Your task to perform on an android device: visit the assistant section in the google photos Image 0: 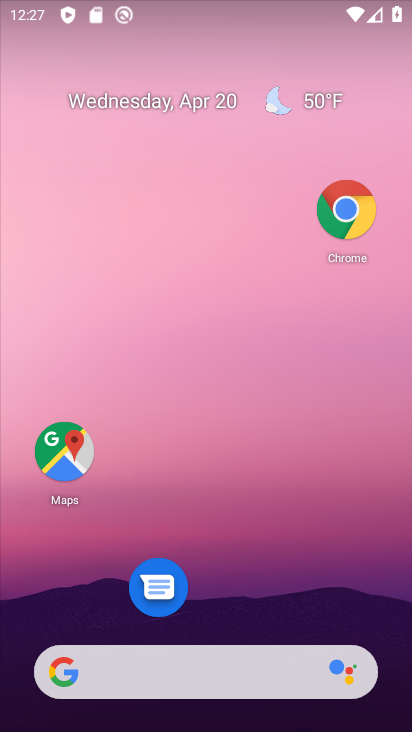
Step 0: drag from (245, 599) to (282, 109)
Your task to perform on an android device: visit the assistant section in the google photos Image 1: 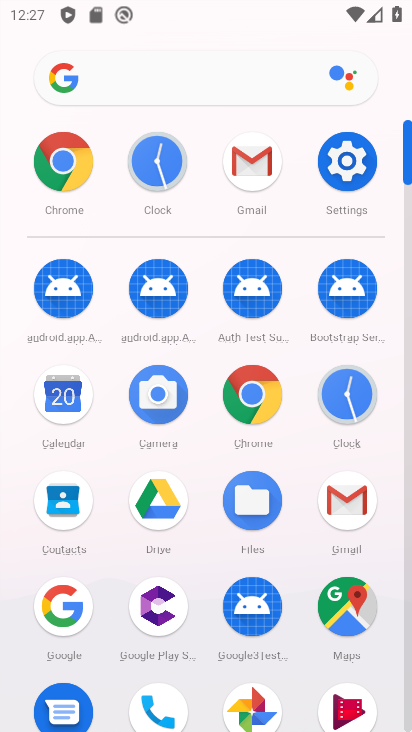
Step 1: click (238, 710)
Your task to perform on an android device: visit the assistant section in the google photos Image 2: 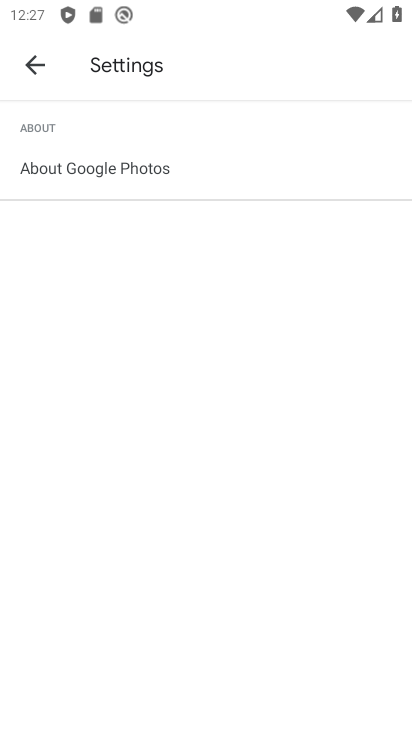
Step 2: click (30, 67)
Your task to perform on an android device: visit the assistant section in the google photos Image 3: 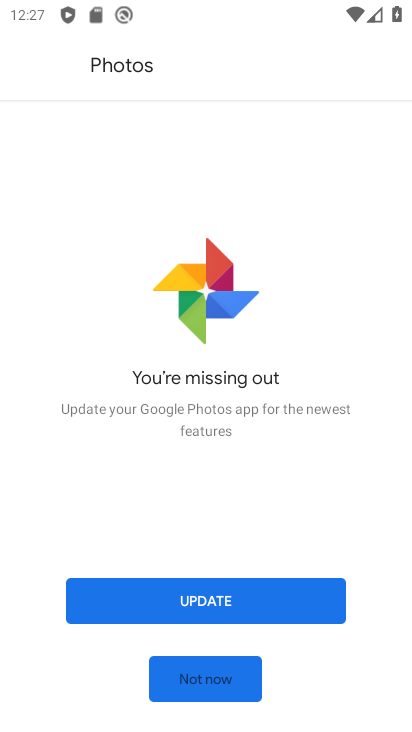
Step 3: click (225, 679)
Your task to perform on an android device: visit the assistant section in the google photos Image 4: 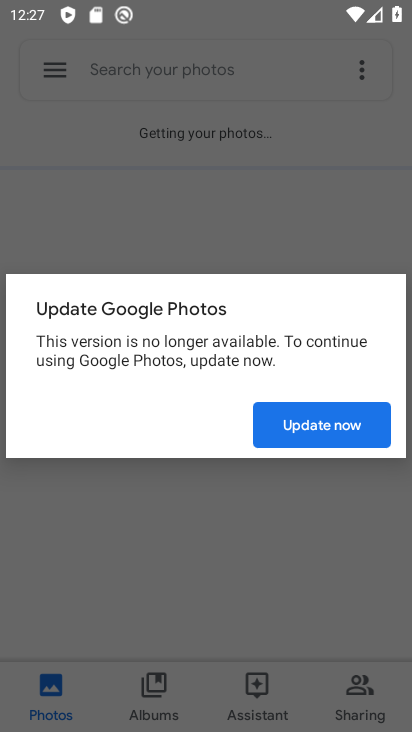
Step 4: click (301, 412)
Your task to perform on an android device: visit the assistant section in the google photos Image 5: 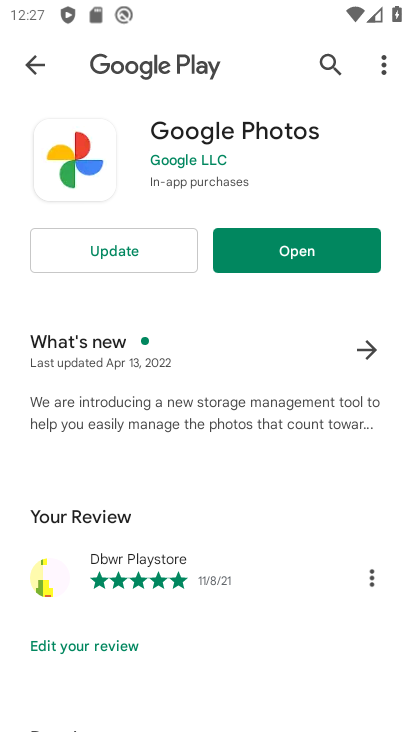
Step 5: click (307, 246)
Your task to perform on an android device: visit the assistant section in the google photos Image 6: 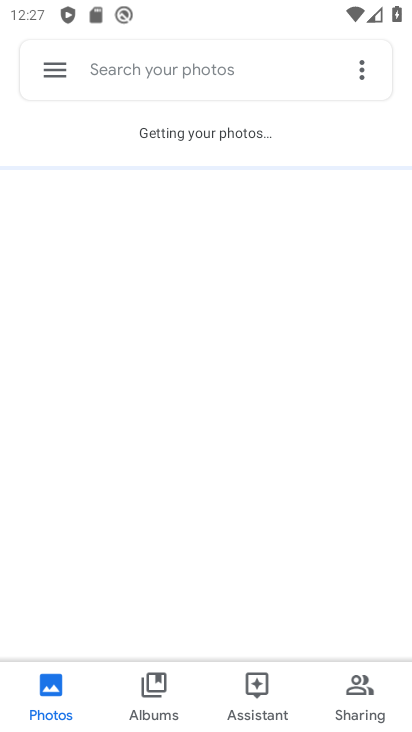
Step 6: click (258, 694)
Your task to perform on an android device: visit the assistant section in the google photos Image 7: 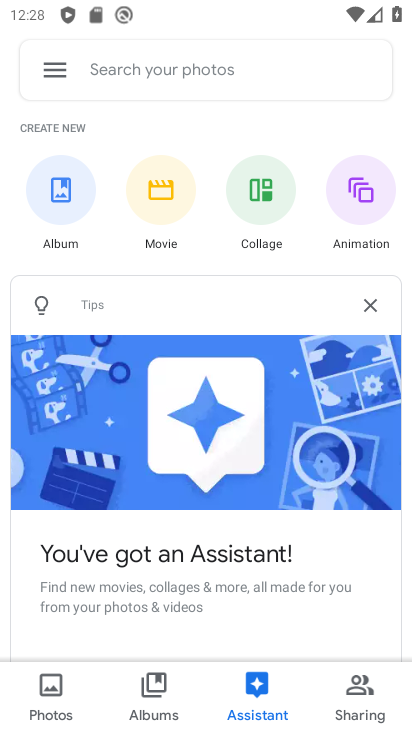
Step 7: task complete